Your task to perform on an android device: open chrome privacy settings Image 0: 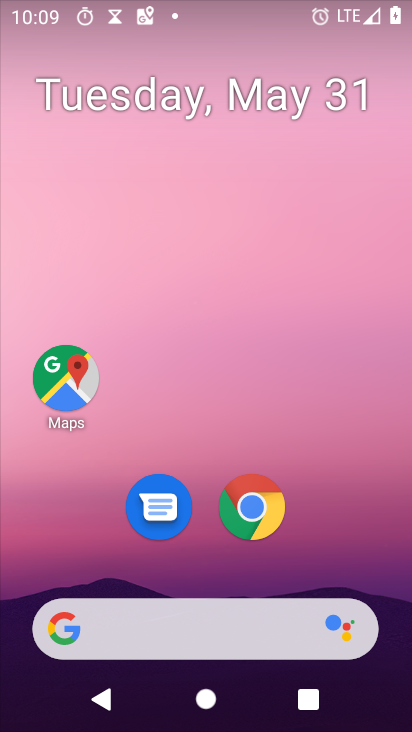
Step 0: click (248, 508)
Your task to perform on an android device: open chrome privacy settings Image 1: 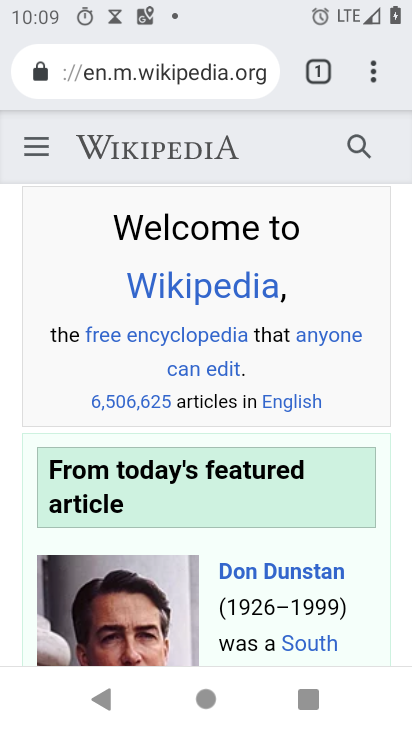
Step 1: click (375, 65)
Your task to perform on an android device: open chrome privacy settings Image 2: 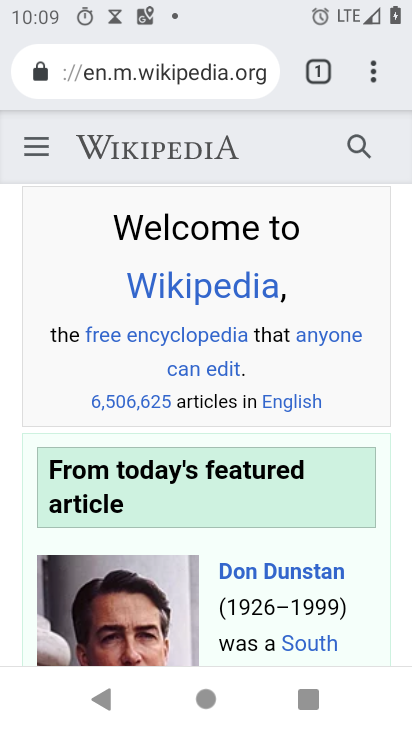
Step 2: click (386, 72)
Your task to perform on an android device: open chrome privacy settings Image 3: 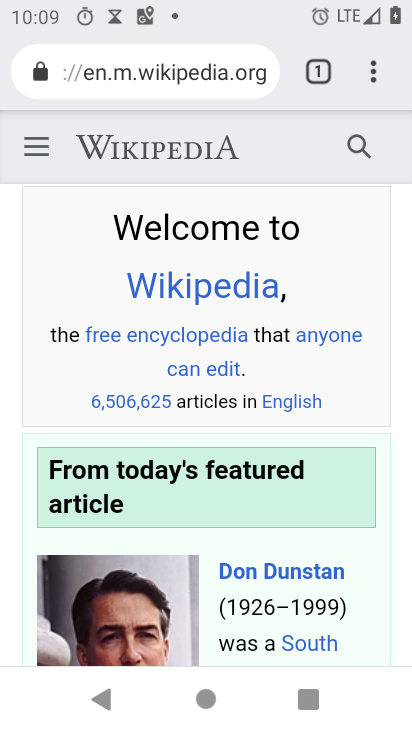
Step 3: click (377, 80)
Your task to perform on an android device: open chrome privacy settings Image 4: 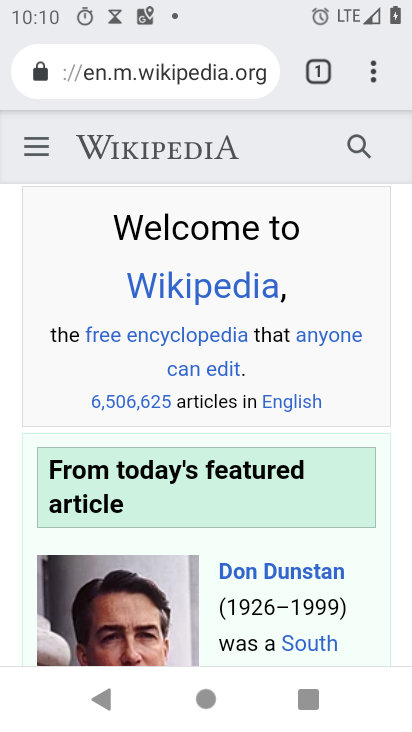
Step 4: click (376, 66)
Your task to perform on an android device: open chrome privacy settings Image 5: 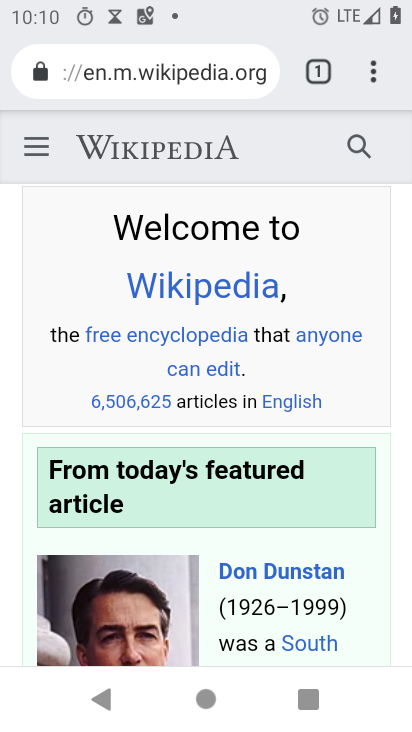
Step 5: click (371, 58)
Your task to perform on an android device: open chrome privacy settings Image 6: 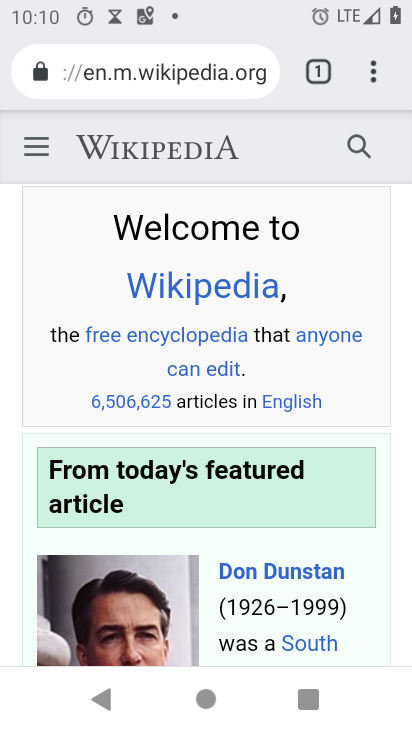
Step 6: click (370, 90)
Your task to perform on an android device: open chrome privacy settings Image 7: 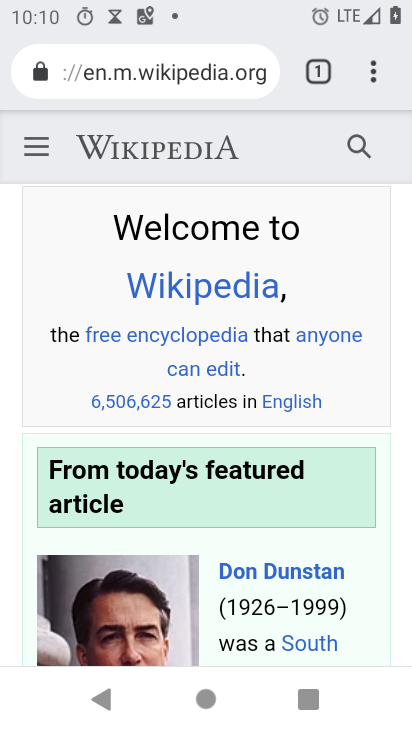
Step 7: click (372, 61)
Your task to perform on an android device: open chrome privacy settings Image 8: 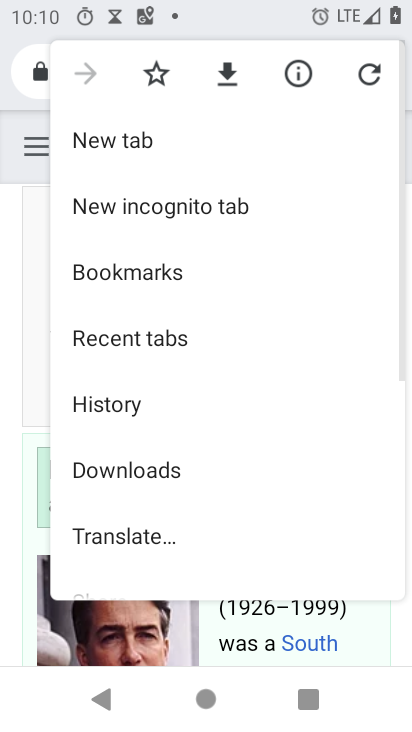
Step 8: drag from (114, 507) to (253, 127)
Your task to perform on an android device: open chrome privacy settings Image 9: 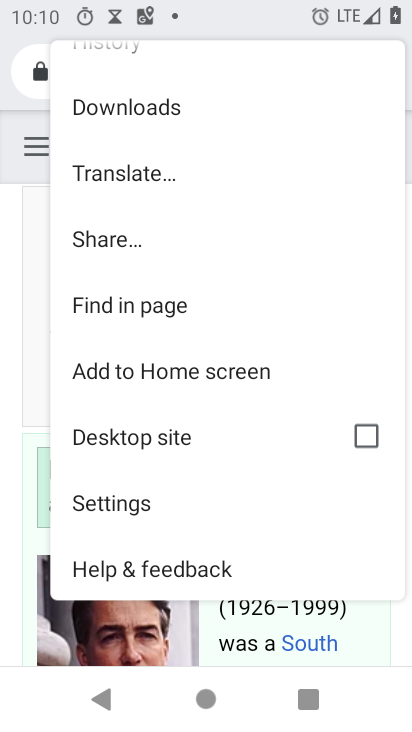
Step 9: click (116, 493)
Your task to perform on an android device: open chrome privacy settings Image 10: 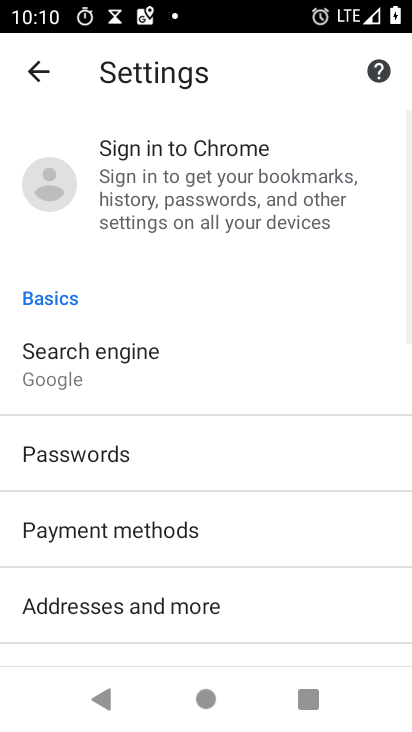
Step 10: drag from (20, 480) to (203, 111)
Your task to perform on an android device: open chrome privacy settings Image 11: 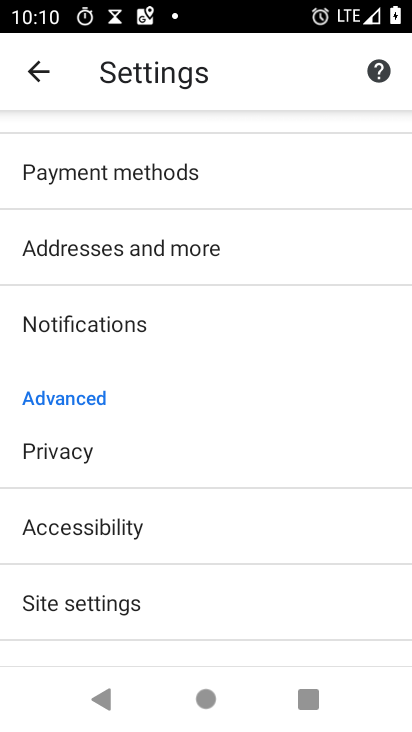
Step 11: click (67, 445)
Your task to perform on an android device: open chrome privacy settings Image 12: 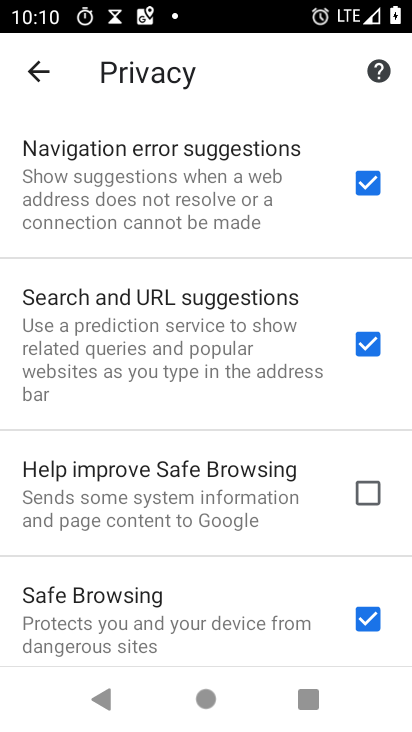
Step 12: task complete